Your task to perform on an android device: Check the weather Image 0: 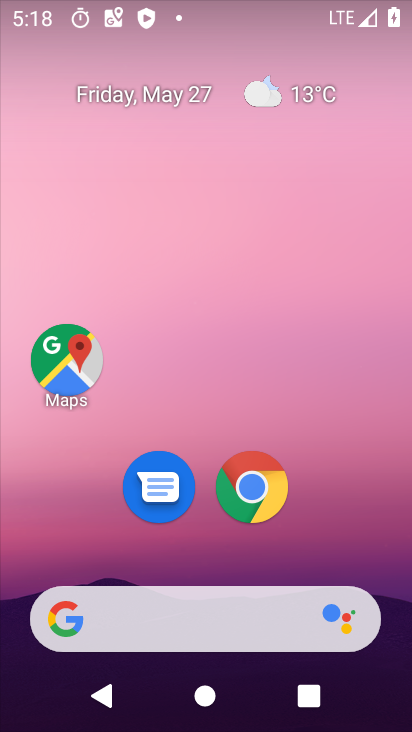
Step 0: click (303, 90)
Your task to perform on an android device: Check the weather Image 1: 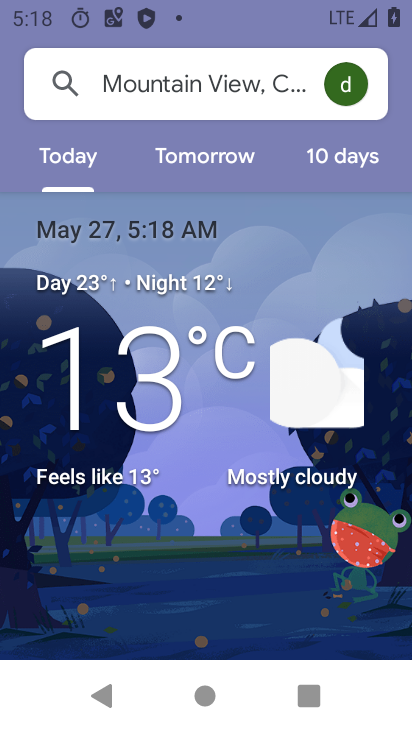
Step 1: task complete